Your task to perform on an android device: star an email in the gmail app Image 0: 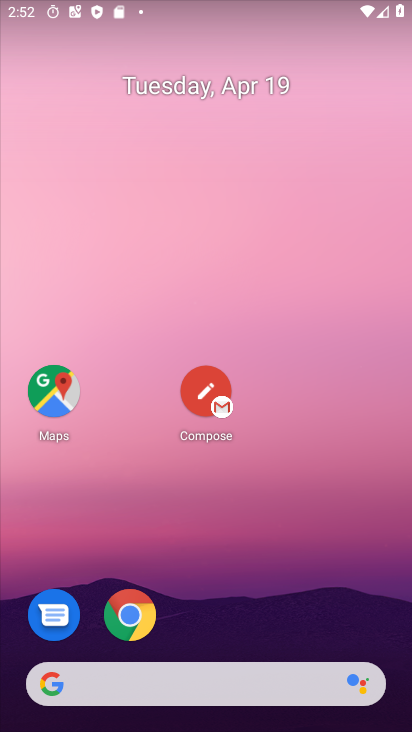
Step 0: drag from (328, 658) to (257, 138)
Your task to perform on an android device: star an email in the gmail app Image 1: 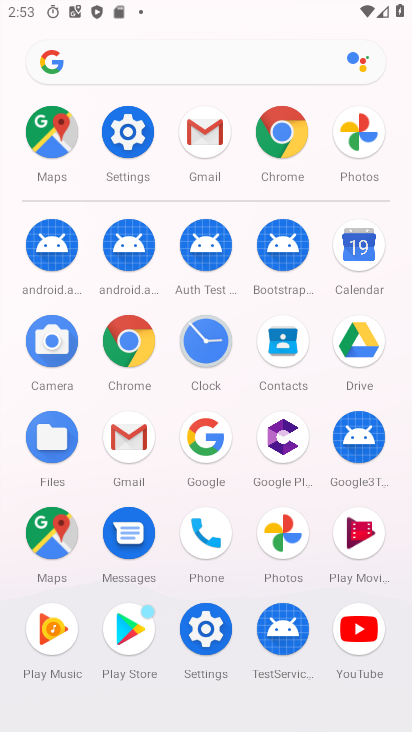
Step 1: click (119, 462)
Your task to perform on an android device: star an email in the gmail app Image 2: 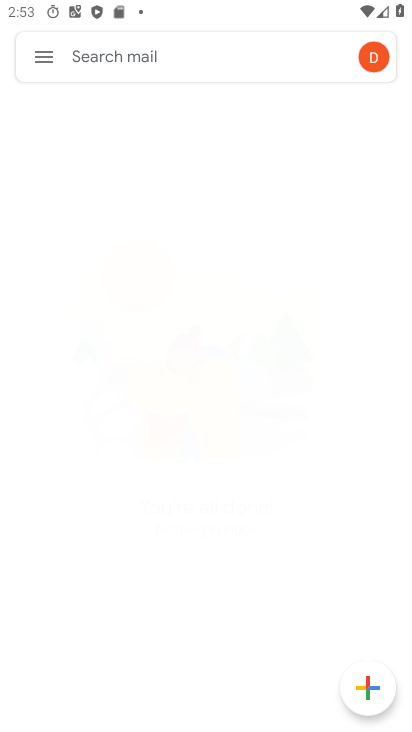
Step 2: click (43, 49)
Your task to perform on an android device: star an email in the gmail app Image 3: 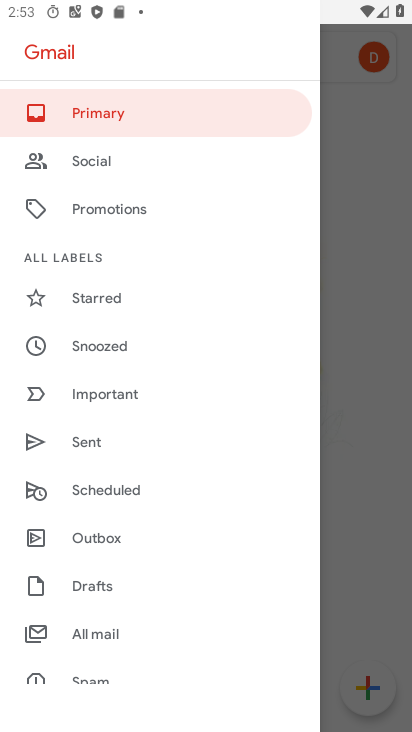
Step 3: click (106, 303)
Your task to perform on an android device: star an email in the gmail app Image 4: 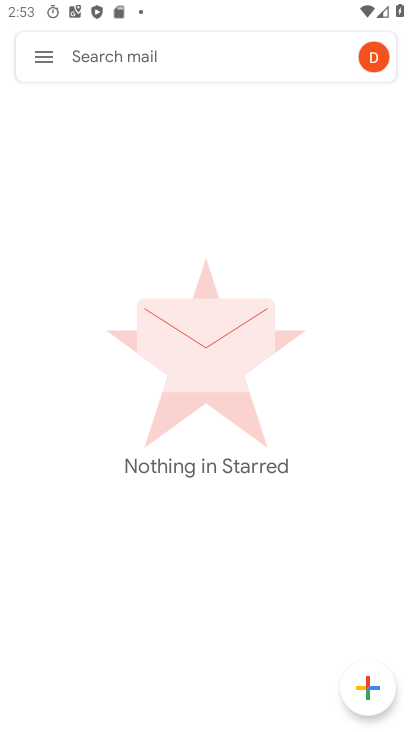
Step 4: task complete